Your task to perform on an android device: What's the weather? Image 0: 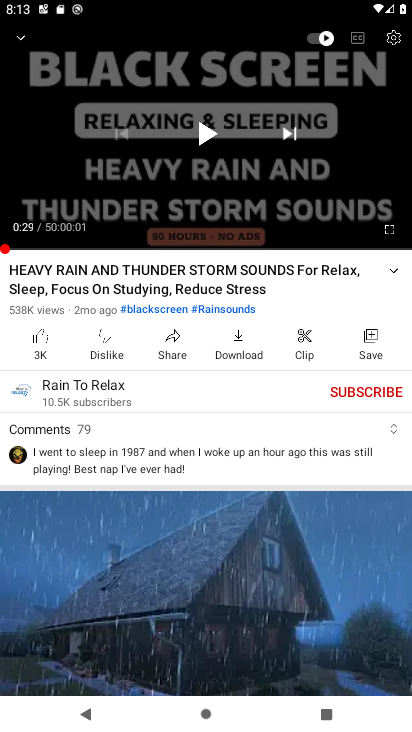
Step 0: press home button
Your task to perform on an android device: What's the weather? Image 1: 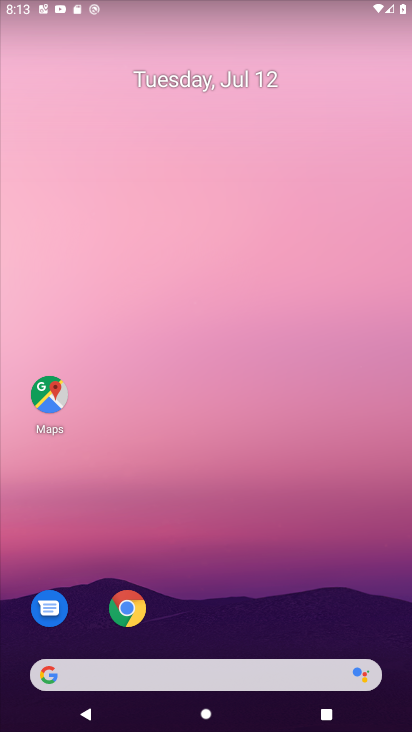
Step 1: click (134, 682)
Your task to perform on an android device: What's the weather? Image 2: 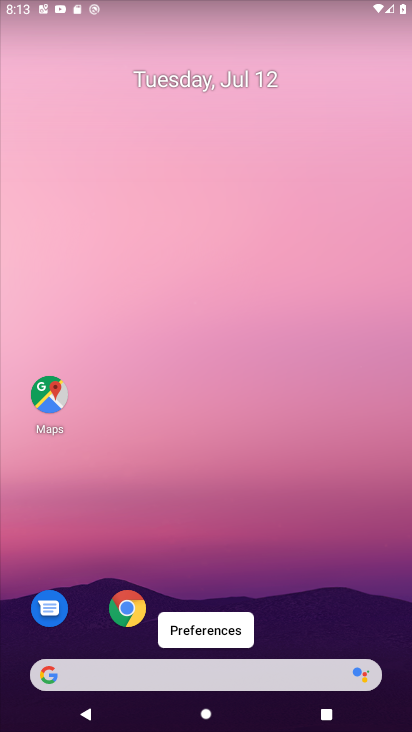
Step 2: click (134, 676)
Your task to perform on an android device: What's the weather? Image 3: 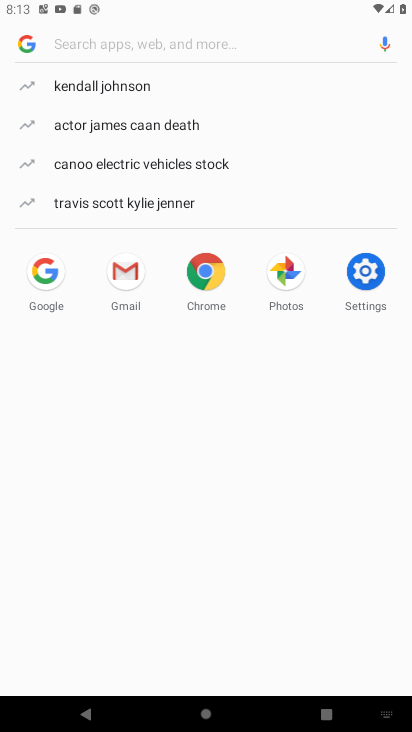
Step 3: type "weather"
Your task to perform on an android device: What's the weather? Image 4: 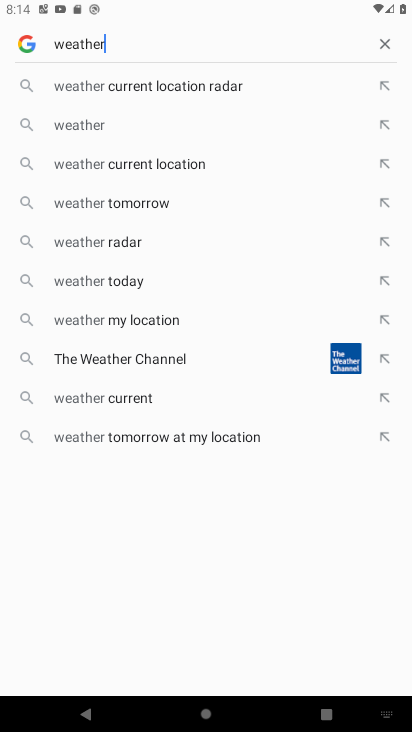
Step 4: click (147, 324)
Your task to perform on an android device: What's the weather? Image 5: 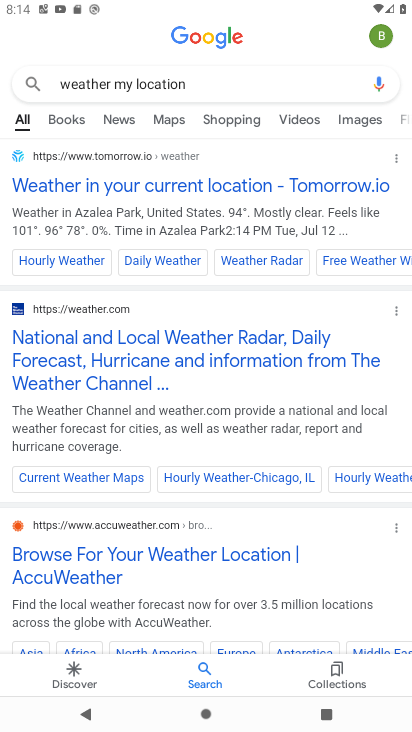
Step 5: click (228, 187)
Your task to perform on an android device: What's the weather? Image 6: 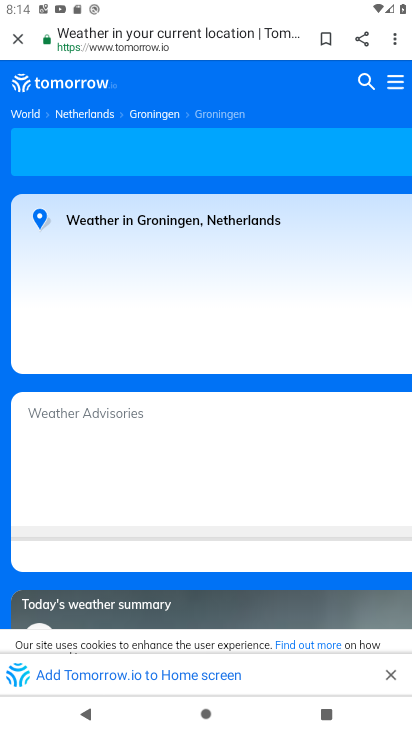
Step 6: click (246, 220)
Your task to perform on an android device: What's the weather? Image 7: 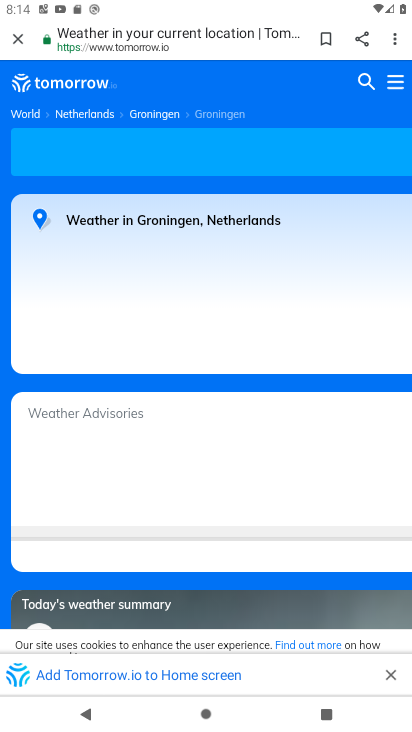
Step 7: task complete